Your task to perform on an android device: change the clock display to analog Image 0: 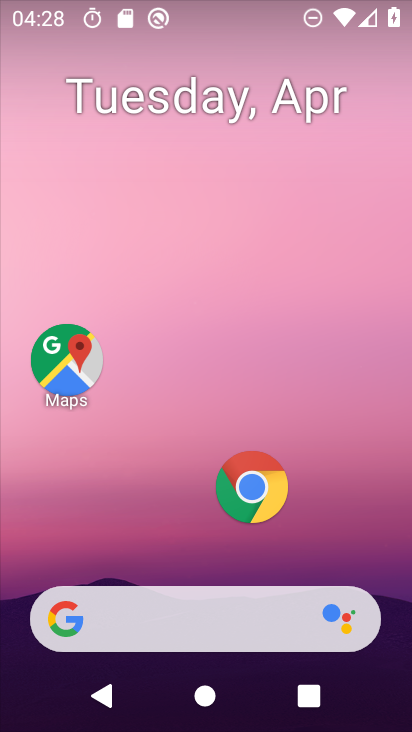
Step 0: drag from (184, 530) to (305, 31)
Your task to perform on an android device: change the clock display to analog Image 1: 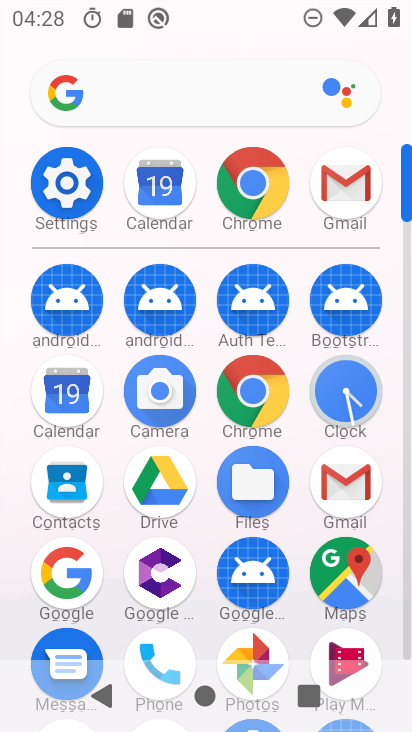
Step 1: click (346, 407)
Your task to perform on an android device: change the clock display to analog Image 2: 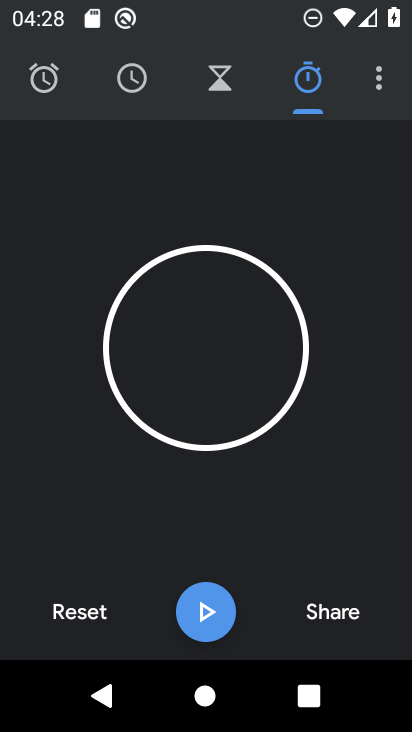
Step 2: click (373, 77)
Your task to perform on an android device: change the clock display to analog Image 3: 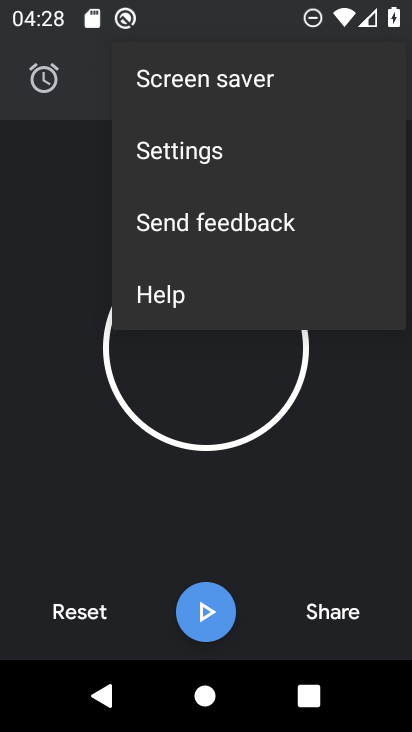
Step 3: click (204, 149)
Your task to perform on an android device: change the clock display to analog Image 4: 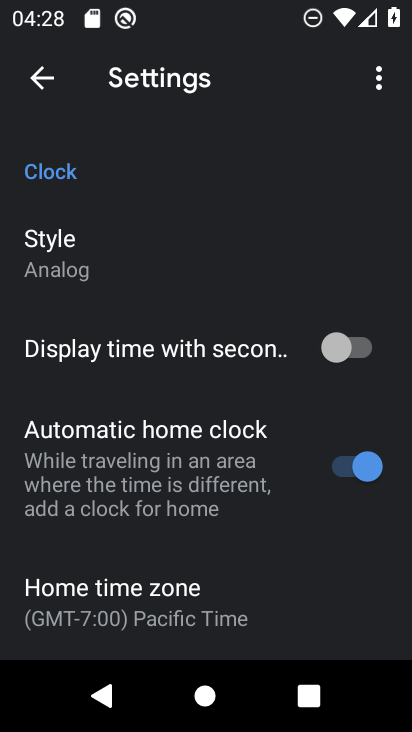
Step 4: task complete